Your task to perform on an android device: Go to ESPN.com Image 0: 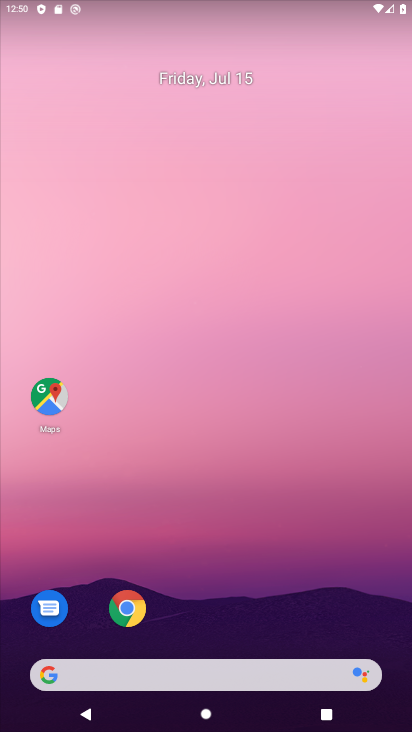
Step 0: click (136, 604)
Your task to perform on an android device: Go to ESPN.com Image 1: 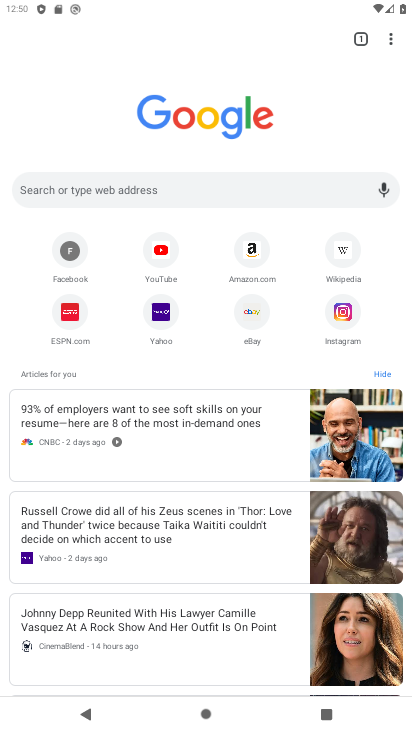
Step 1: click (70, 311)
Your task to perform on an android device: Go to ESPN.com Image 2: 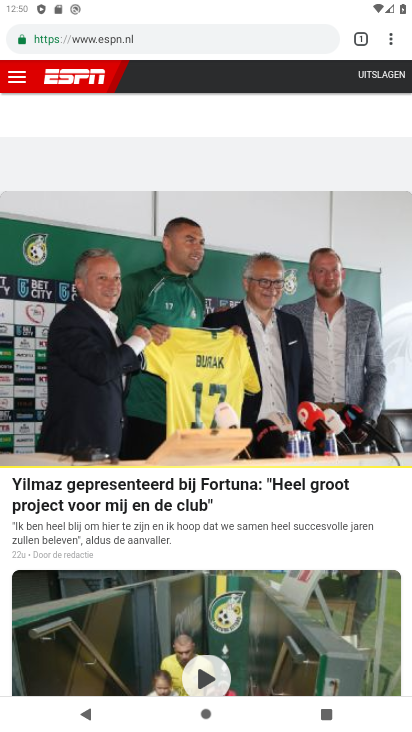
Step 2: task complete